Your task to perform on an android device: Search for seafood restaurants on Google Maps Image 0: 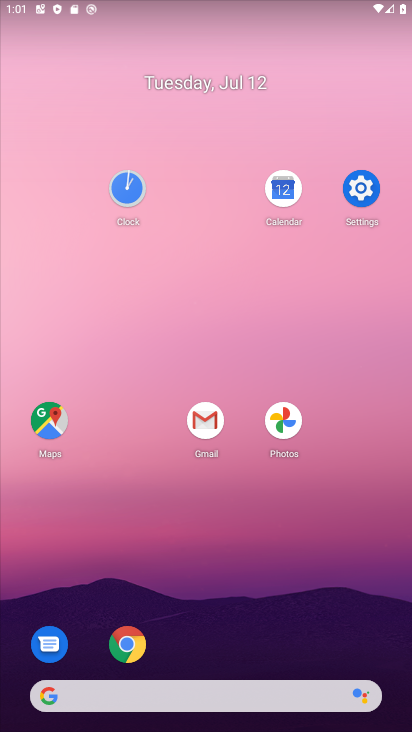
Step 0: click (45, 421)
Your task to perform on an android device: Search for seafood restaurants on Google Maps Image 1: 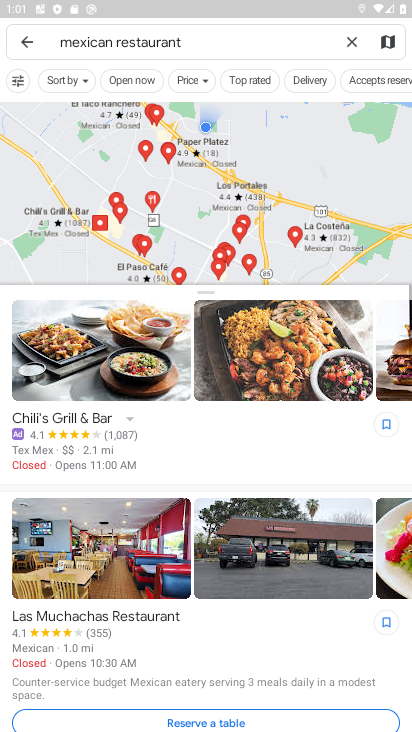
Step 1: click (359, 37)
Your task to perform on an android device: Search for seafood restaurants on Google Maps Image 2: 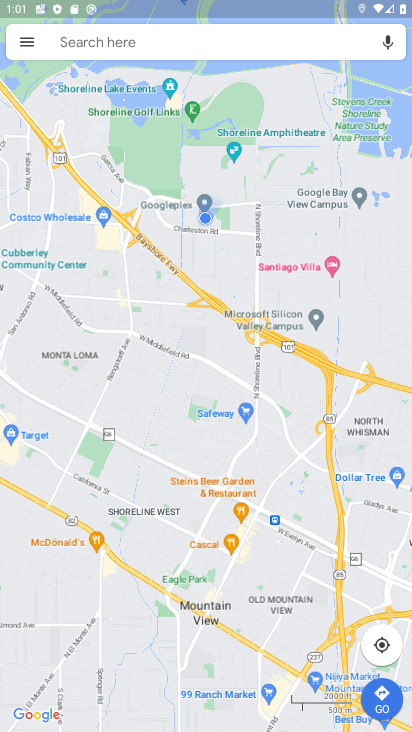
Step 2: click (241, 43)
Your task to perform on an android device: Search for seafood restaurants on Google Maps Image 3: 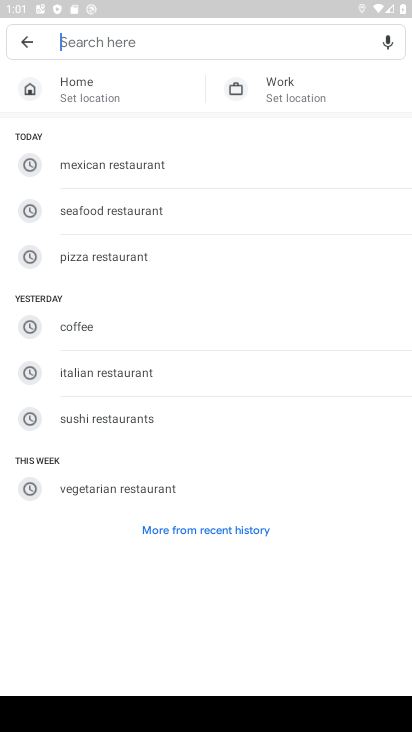
Step 3: click (217, 216)
Your task to perform on an android device: Search for seafood restaurants on Google Maps Image 4: 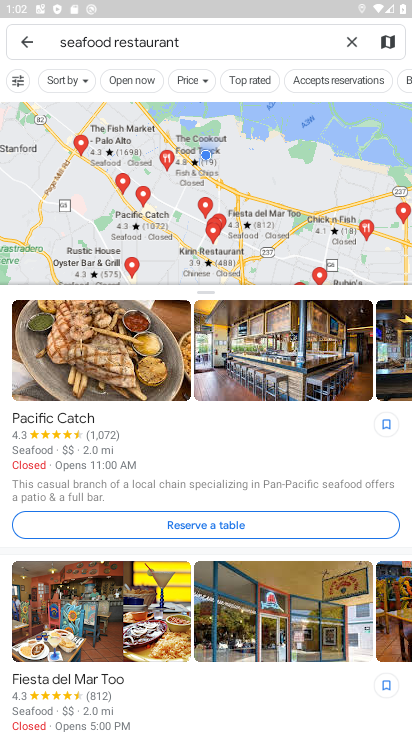
Step 4: task complete